Your task to perform on an android device: Go to Maps Image 0: 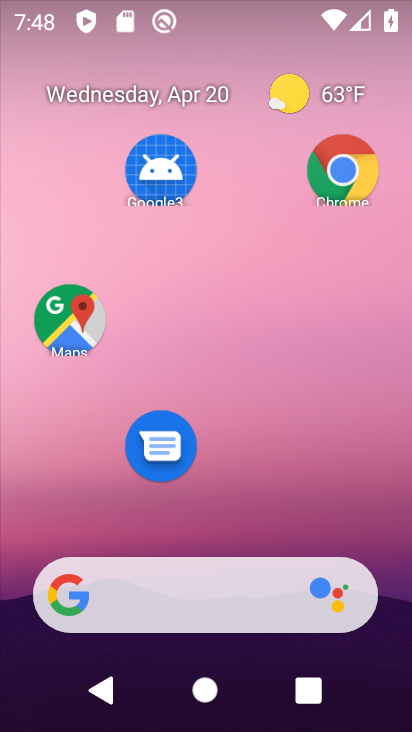
Step 0: click (67, 323)
Your task to perform on an android device: Go to Maps Image 1: 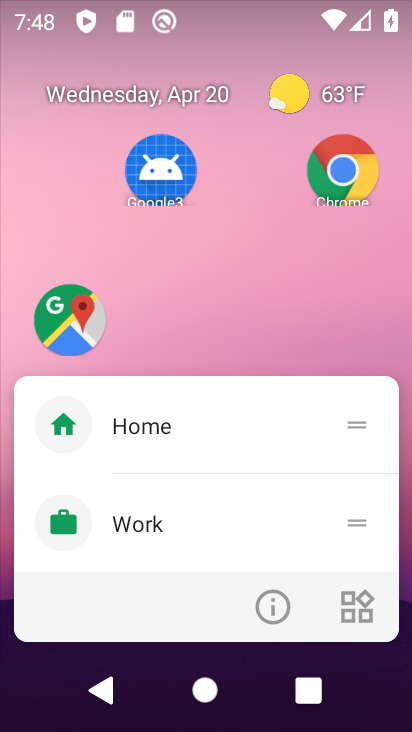
Step 1: click (66, 316)
Your task to perform on an android device: Go to Maps Image 2: 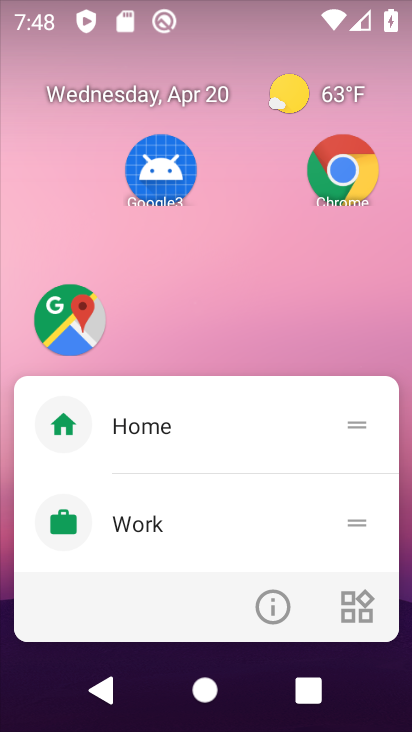
Step 2: click (66, 316)
Your task to perform on an android device: Go to Maps Image 3: 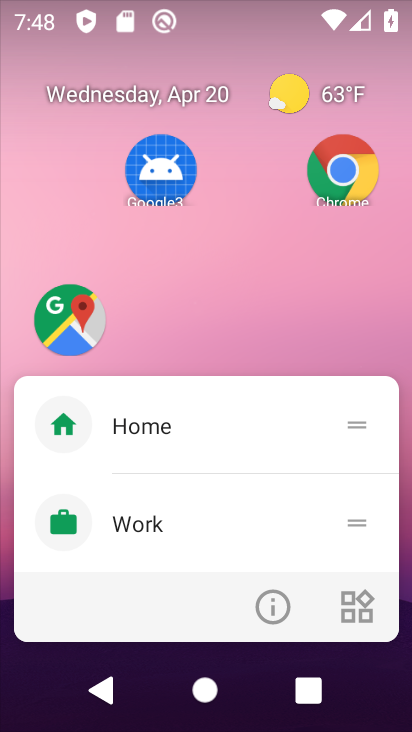
Step 3: click (66, 316)
Your task to perform on an android device: Go to Maps Image 4: 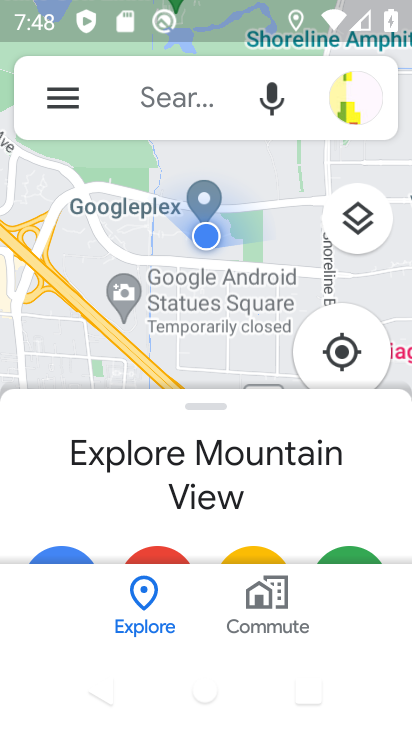
Step 4: task complete